Your task to perform on an android device: Search for pizza restaurants on Maps Image 0: 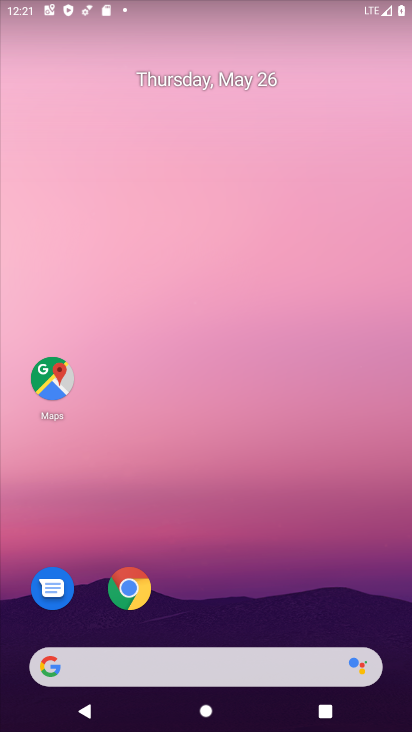
Step 0: drag from (251, 523) to (225, 14)
Your task to perform on an android device: Search for pizza restaurants on Maps Image 1: 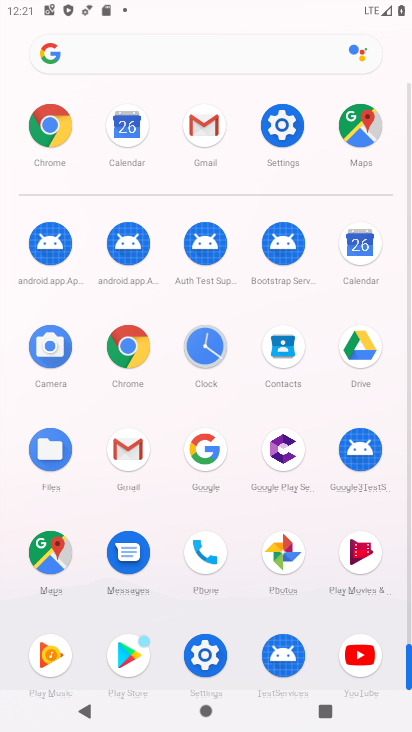
Step 1: drag from (18, 548) to (22, 225)
Your task to perform on an android device: Search for pizza restaurants on Maps Image 2: 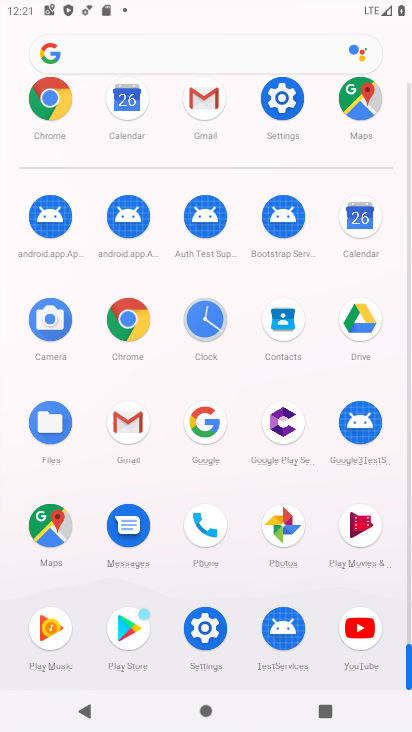
Step 2: click (46, 523)
Your task to perform on an android device: Search for pizza restaurants on Maps Image 3: 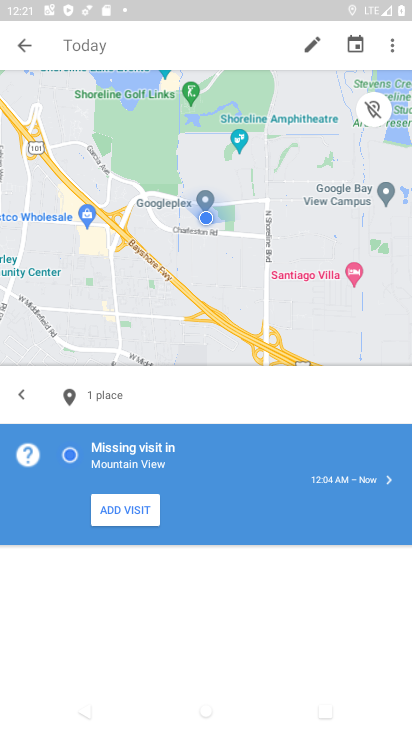
Step 3: click (30, 39)
Your task to perform on an android device: Search for pizza restaurants on Maps Image 4: 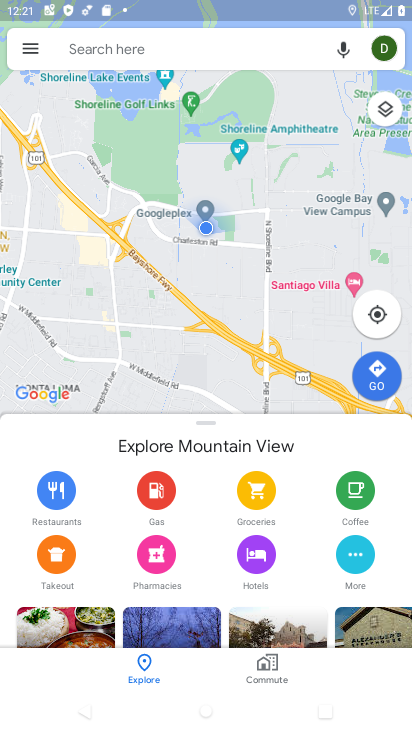
Step 4: click (232, 47)
Your task to perform on an android device: Search for pizza restaurants on Maps Image 5: 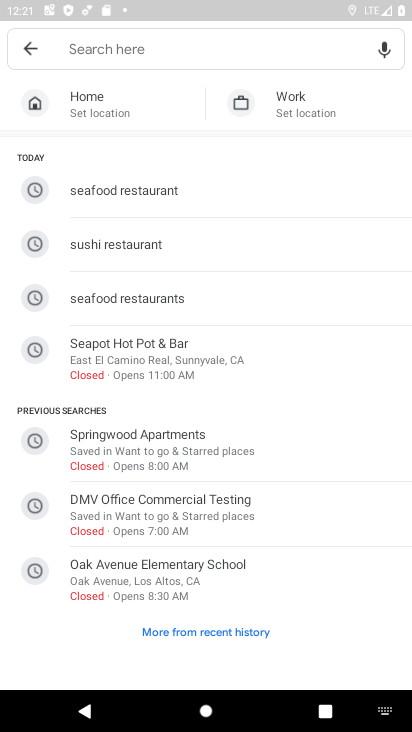
Step 5: type "pizza restaurants "
Your task to perform on an android device: Search for pizza restaurants on Maps Image 6: 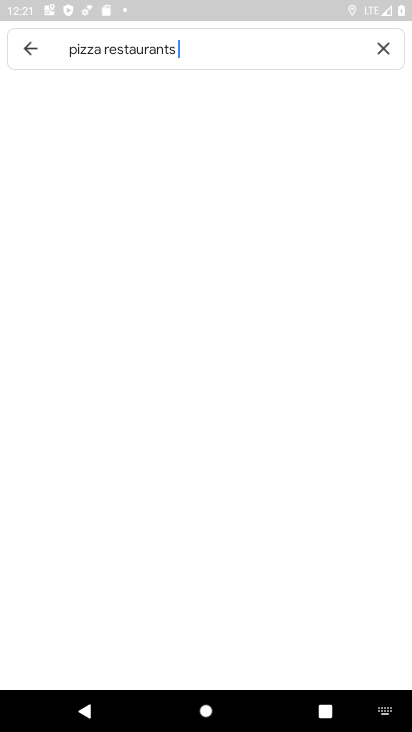
Step 6: type ""
Your task to perform on an android device: Search for pizza restaurants on Maps Image 7: 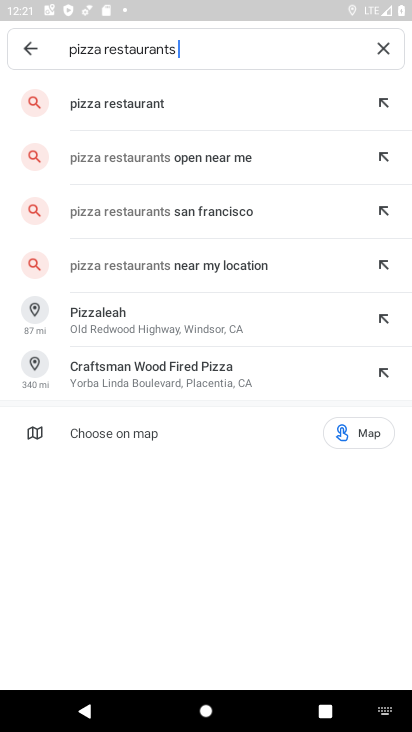
Step 7: click (184, 102)
Your task to perform on an android device: Search for pizza restaurants on Maps Image 8: 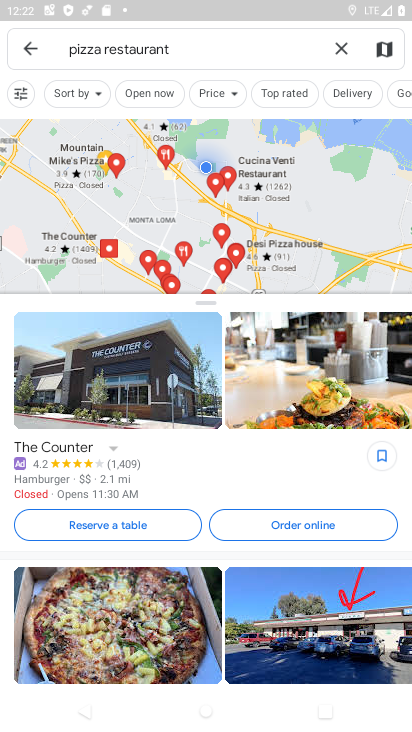
Step 8: task complete